Your task to perform on an android device: Show the shopping cart on ebay. Search for energizer triple a on ebay, select the first entry, add it to the cart, then select checkout. Image 0: 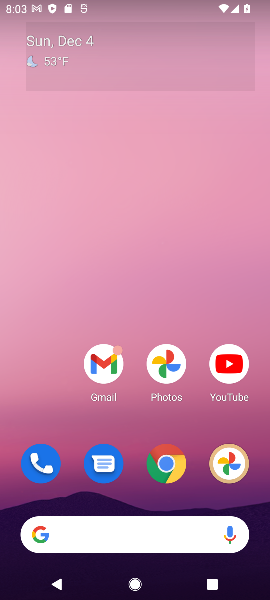
Step 0: click (162, 543)
Your task to perform on an android device: Show the shopping cart on ebay. Search for energizer triple a on ebay, select the first entry, add it to the cart, then select checkout. Image 1: 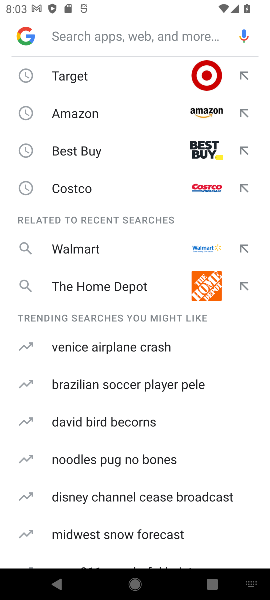
Step 1: type "ebay"
Your task to perform on an android device: Show the shopping cart on ebay. Search for energizer triple a on ebay, select the first entry, add it to the cart, then select checkout. Image 2: 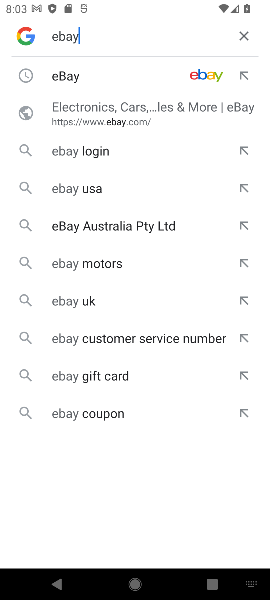
Step 2: click (88, 90)
Your task to perform on an android device: Show the shopping cart on ebay. Search for energizer triple a on ebay, select the first entry, add it to the cart, then select checkout. Image 3: 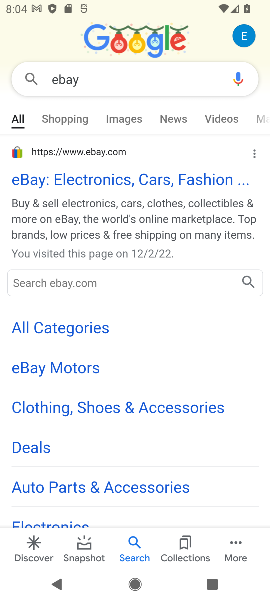
Step 3: click (94, 185)
Your task to perform on an android device: Show the shopping cart on ebay. Search for energizer triple a on ebay, select the first entry, add it to the cart, then select checkout. Image 4: 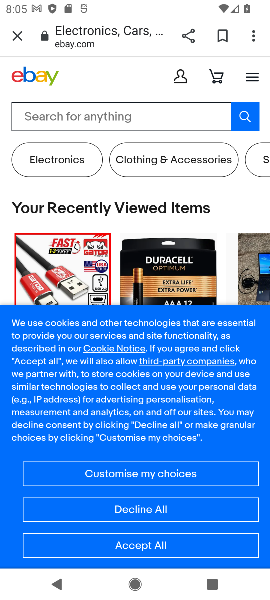
Step 4: click (161, 120)
Your task to perform on an android device: Show the shopping cart on ebay. Search for energizer triple a on ebay, select the first entry, add it to the cart, then select checkout. Image 5: 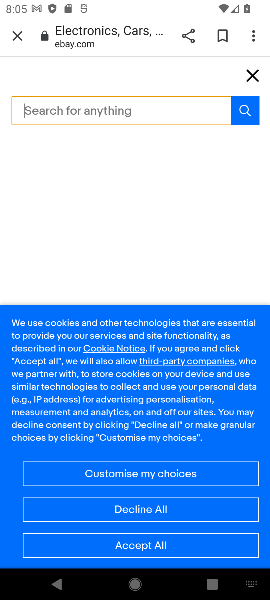
Step 5: task complete